Your task to perform on an android device: Go to sound settings Image 0: 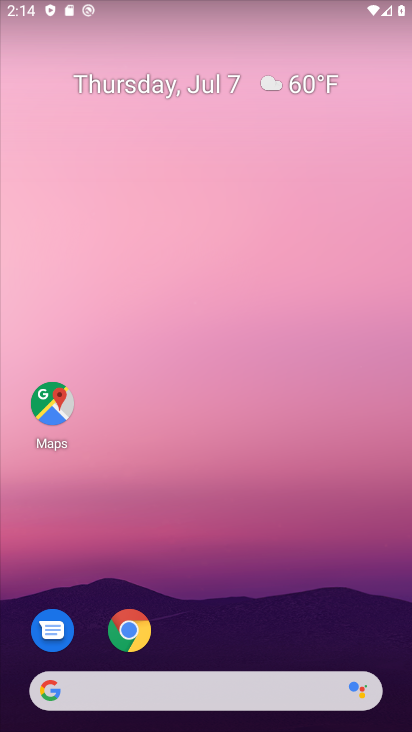
Step 0: drag from (239, 667) to (160, 174)
Your task to perform on an android device: Go to sound settings Image 1: 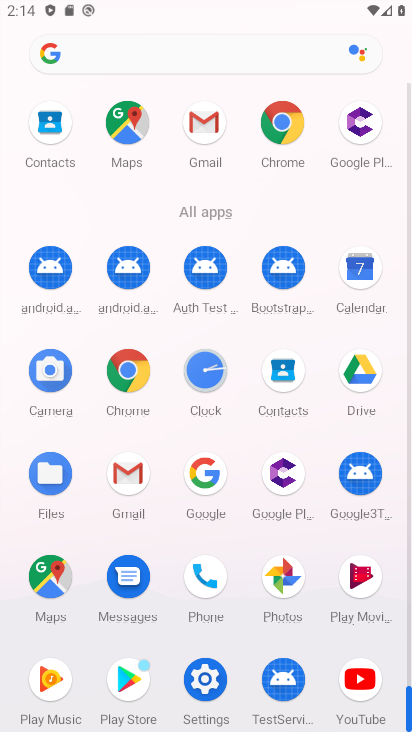
Step 1: drag from (180, 417) to (148, 169)
Your task to perform on an android device: Go to sound settings Image 2: 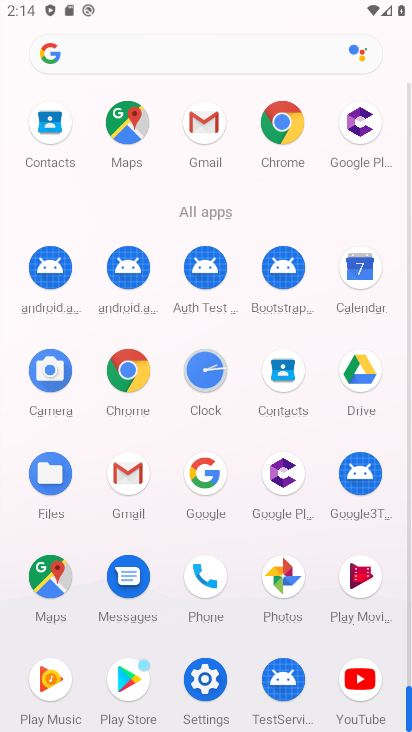
Step 2: click (207, 674)
Your task to perform on an android device: Go to sound settings Image 3: 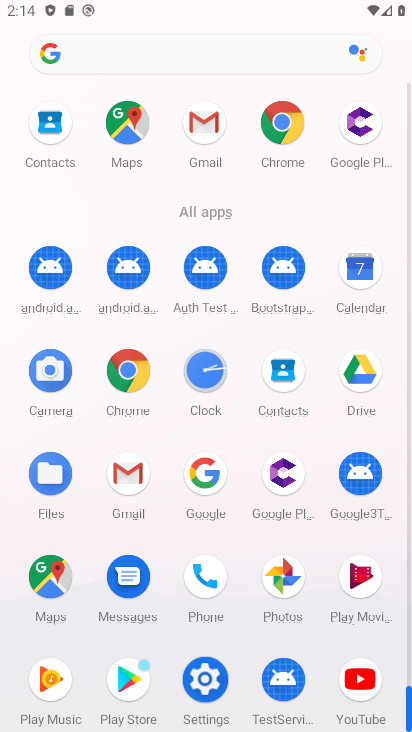
Step 3: click (214, 670)
Your task to perform on an android device: Go to sound settings Image 4: 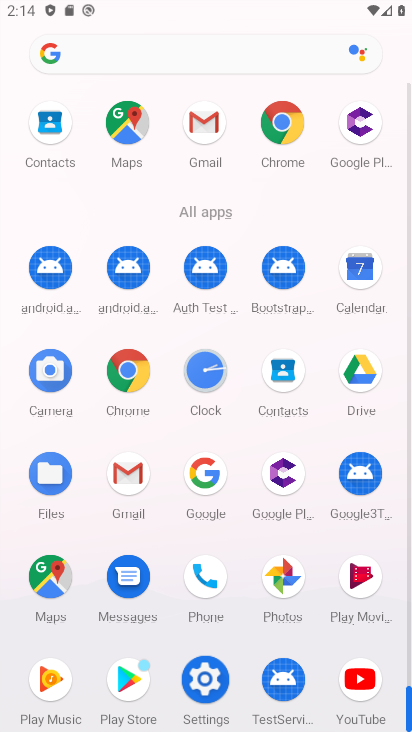
Step 4: click (215, 671)
Your task to perform on an android device: Go to sound settings Image 5: 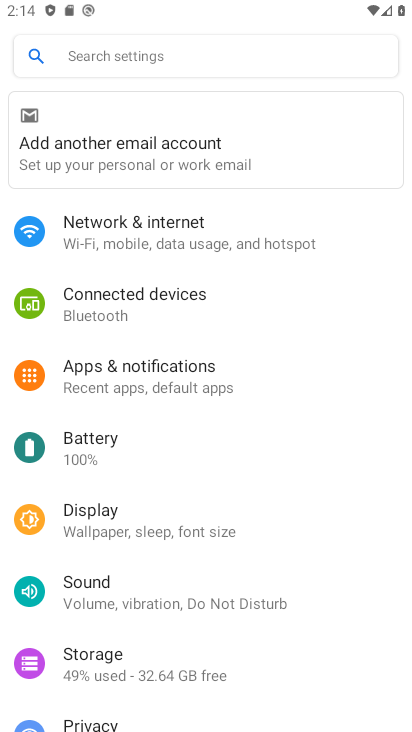
Step 5: drag from (151, 602) to (151, 338)
Your task to perform on an android device: Go to sound settings Image 6: 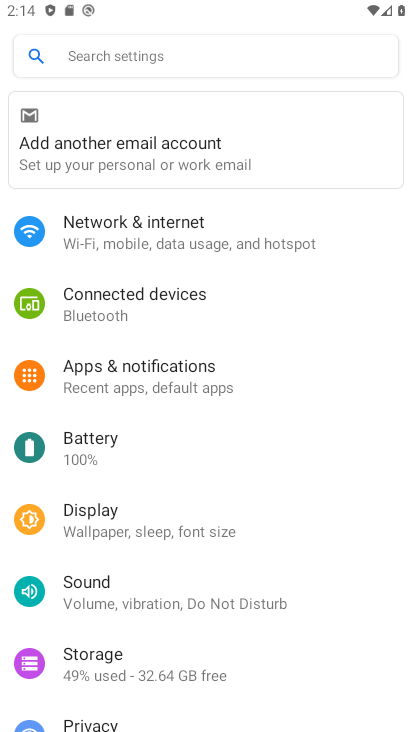
Step 6: click (110, 588)
Your task to perform on an android device: Go to sound settings Image 7: 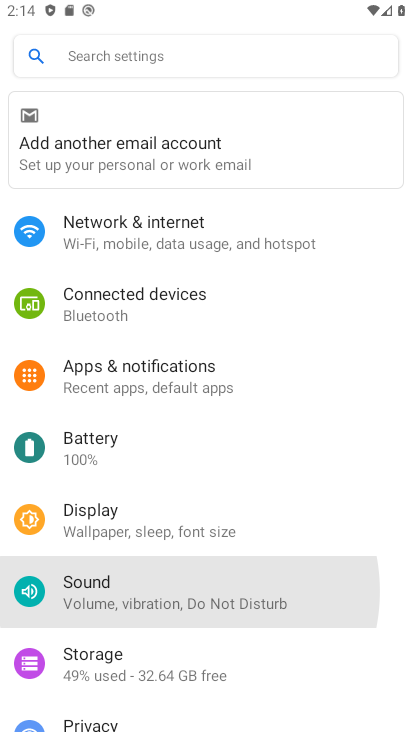
Step 7: click (110, 588)
Your task to perform on an android device: Go to sound settings Image 8: 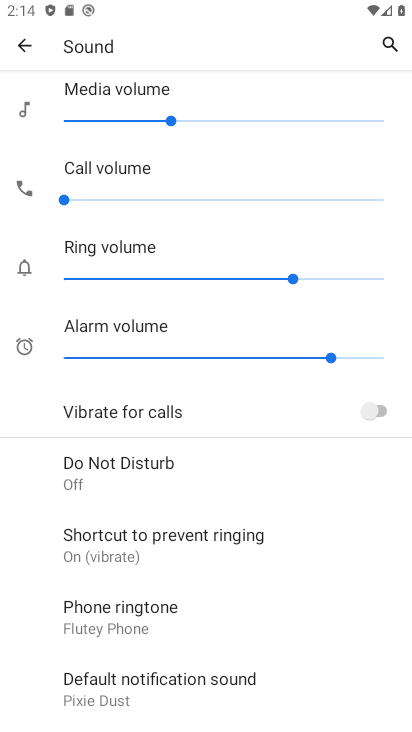
Step 8: task complete